Your task to perform on an android device: Go to calendar. Show me events next week Image 0: 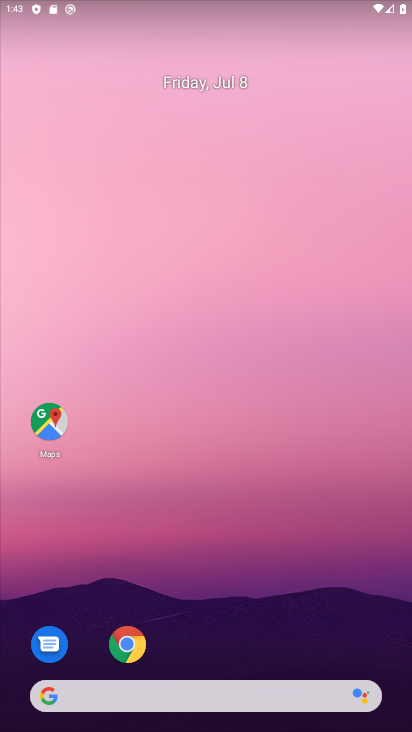
Step 0: drag from (200, 634) to (224, 91)
Your task to perform on an android device: Go to calendar. Show me events next week Image 1: 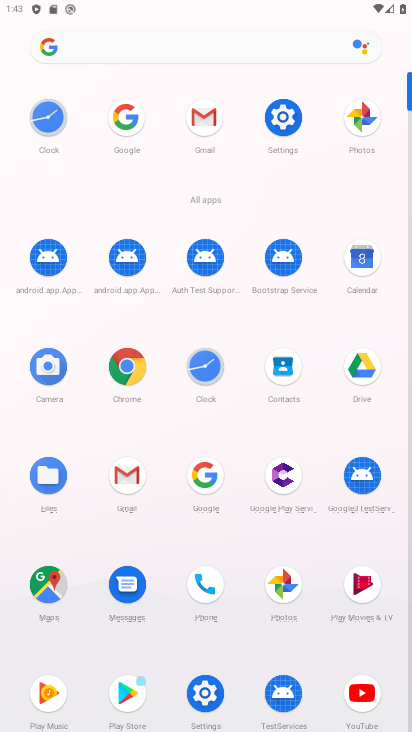
Step 1: click (365, 258)
Your task to perform on an android device: Go to calendar. Show me events next week Image 2: 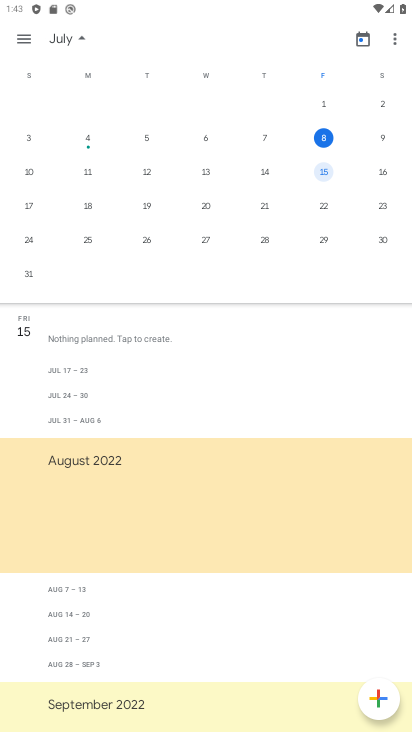
Step 2: task complete